Your task to perform on an android device: remove spam from my inbox in the gmail app Image 0: 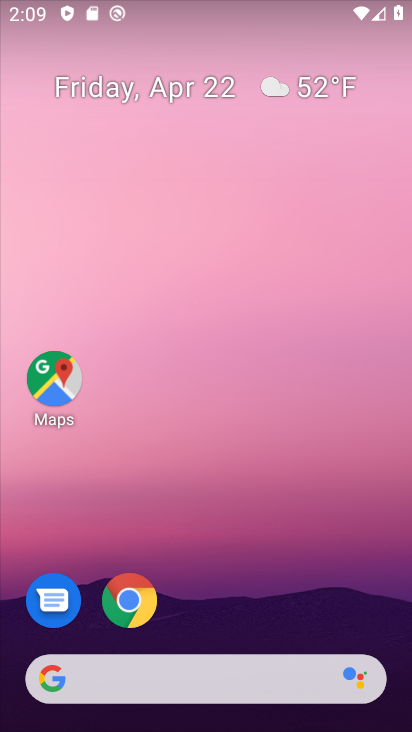
Step 0: drag from (285, 531) to (255, 19)
Your task to perform on an android device: remove spam from my inbox in the gmail app Image 1: 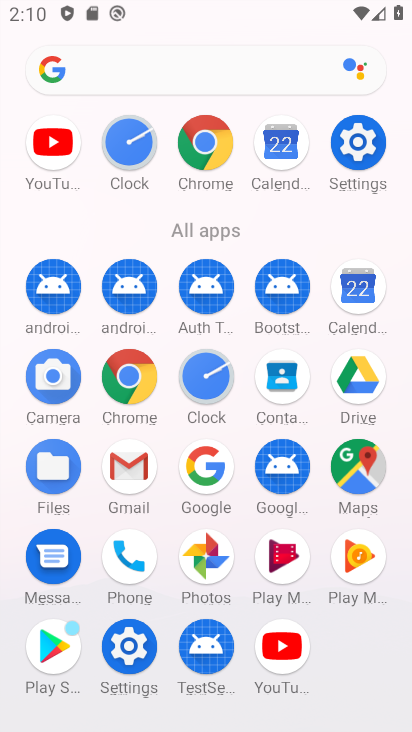
Step 1: drag from (11, 546) to (2, 222)
Your task to perform on an android device: remove spam from my inbox in the gmail app Image 2: 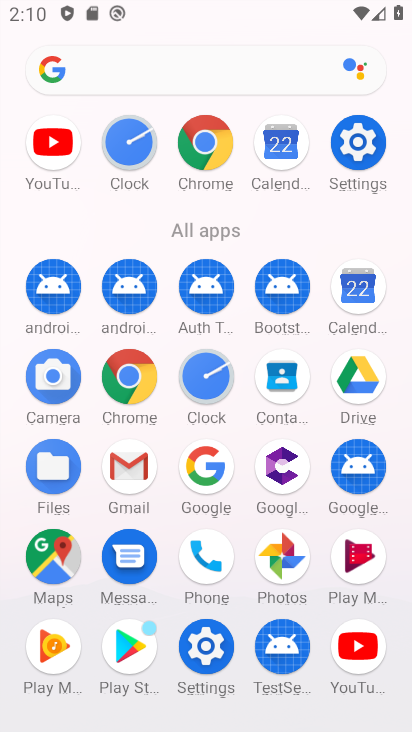
Step 2: click (128, 453)
Your task to perform on an android device: remove spam from my inbox in the gmail app Image 3: 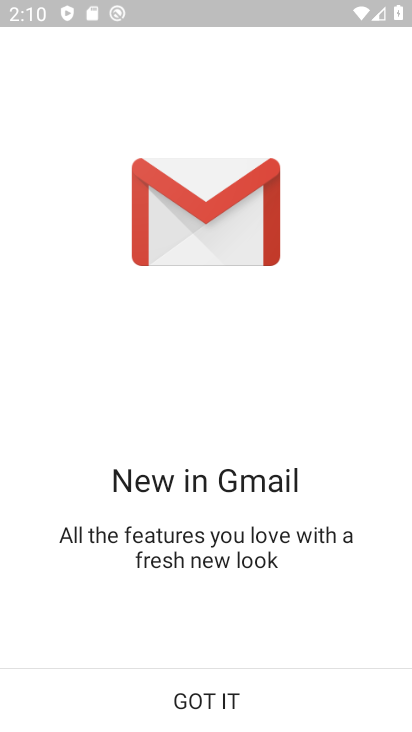
Step 3: click (239, 688)
Your task to perform on an android device: remove spam from my inbox in the gmail app Image 4: 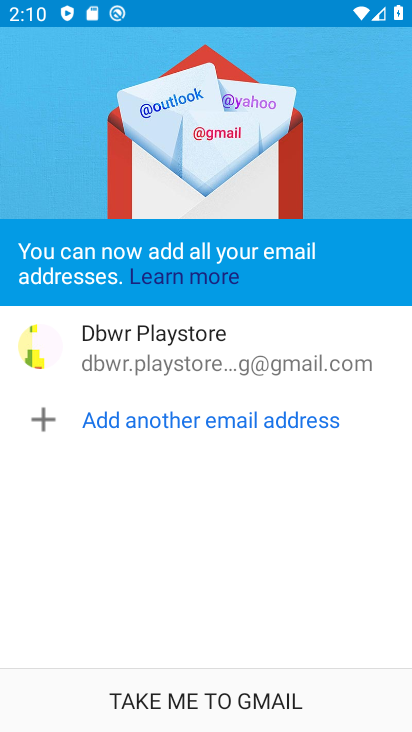
Step 4: click (219, 698)
Your task to perform on an android device: remove spam from my inbox in the gmail app Image 5: 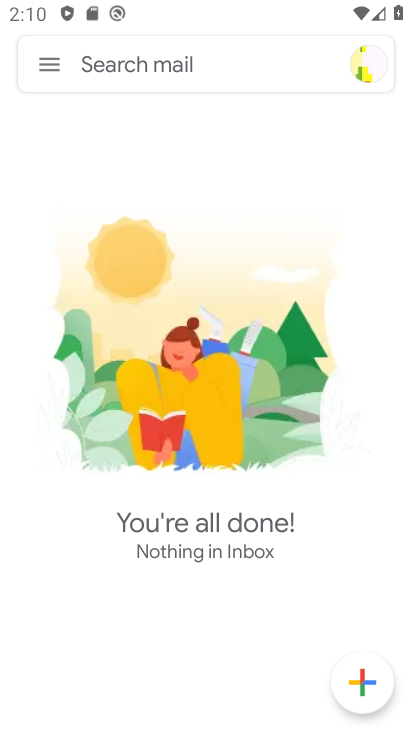
Step 5: click (51, 52)
Your task to perform on an android device: remove spam from my inbox in the gmail app Image 6: 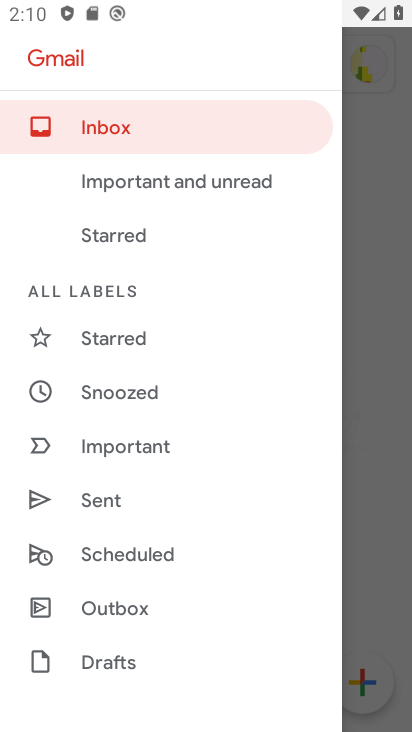
Step 6: drag from (168, 444) to (163, 190)
Your task to perform on an android device: remove spam from my inbox in the gmail app Image 7: 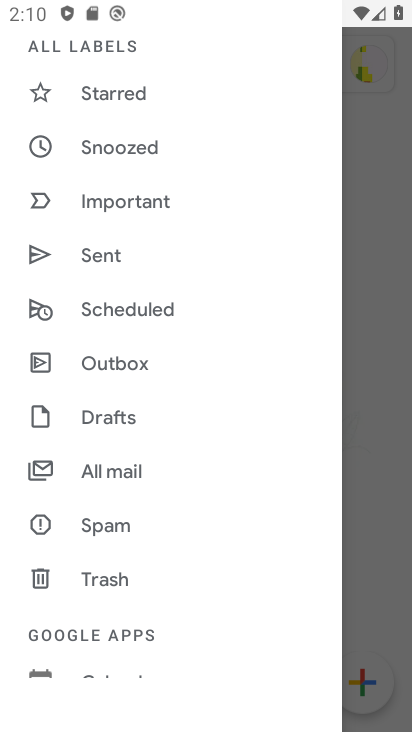
Step 7: click (102, 518)
Your task to perform on an android device: remove spam from my inbox in the gmail app Image 8: 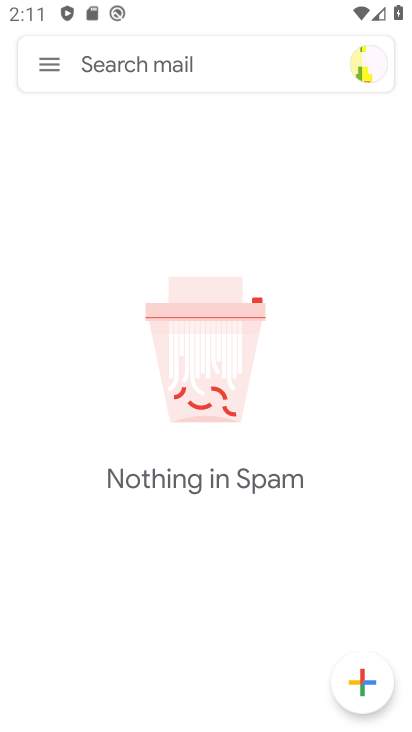
Step 8: task complete